Your task to perform on an android device: add a contact Image 0: 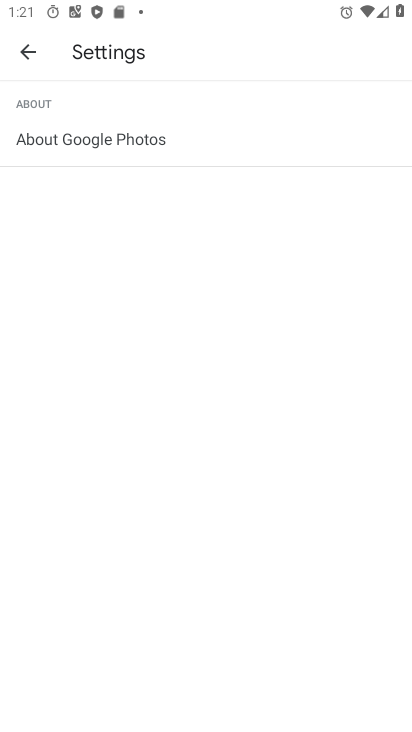
Step 0: press home button
Your task to perform on an android device: add a contact Image 1: 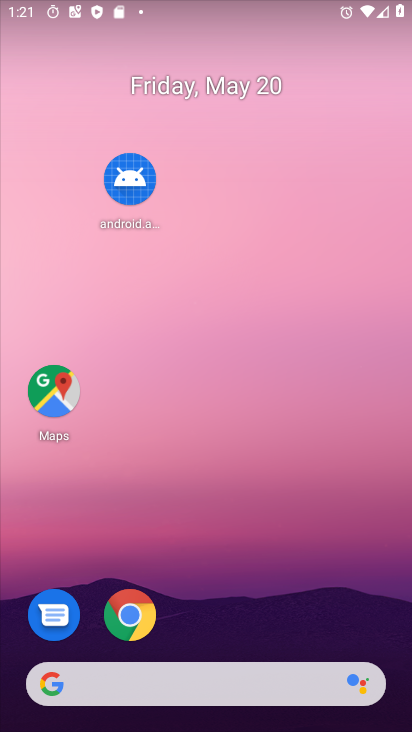
Step 1: drag from (245, 584) to (229, 159)
Your task to perform on an android device: add a contact Image 2: 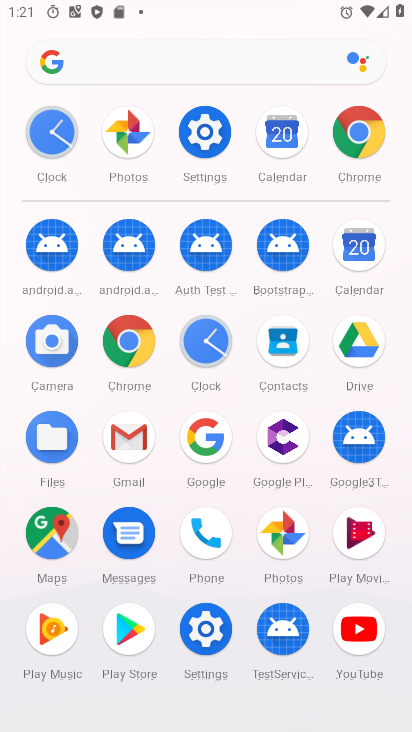
Step 2: click (293, 340)
Your task to perform on an android device: add a contact Image 3: 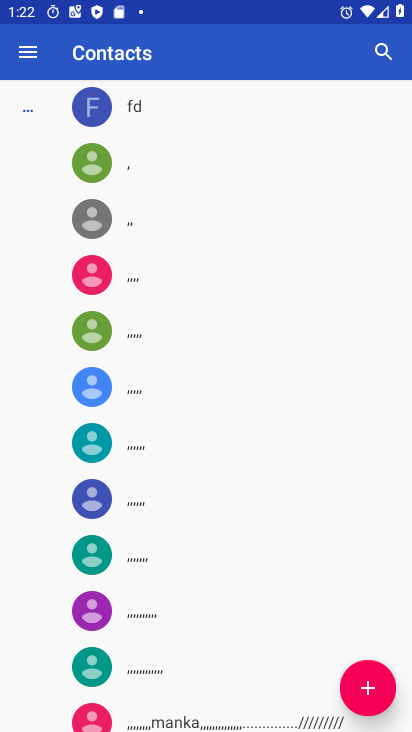
Step 3: click (368, 688)
Your task to perform on an android device: add a contact Image 4: 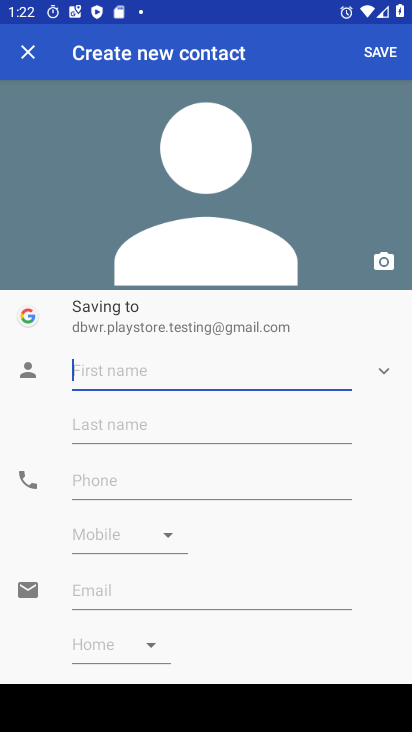
Step 4: type "zaz"
Your task to perform on an android device: add a contact Image 5: 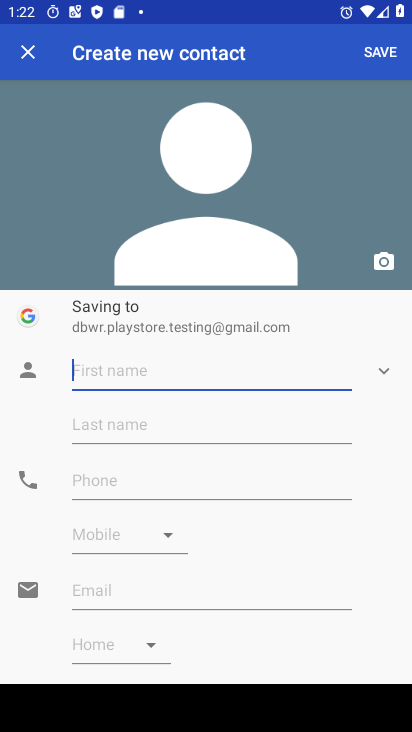
Step 5: click (166, 482)
Your task to perform on an android device: add a contact Image 6: 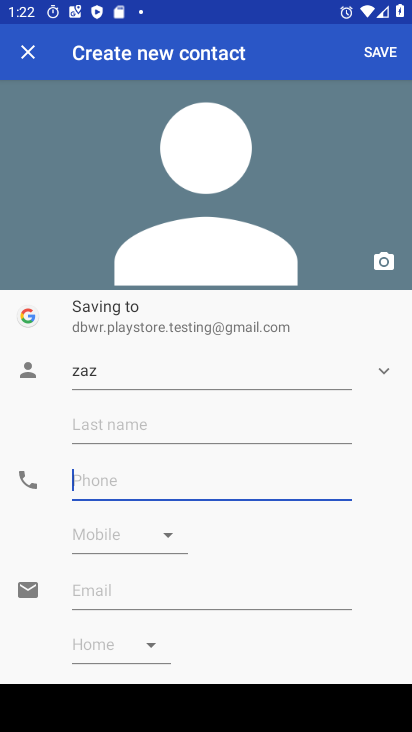
Step 6: type "3455433421"
Your task to perform on an android device: add a contact Image 7: 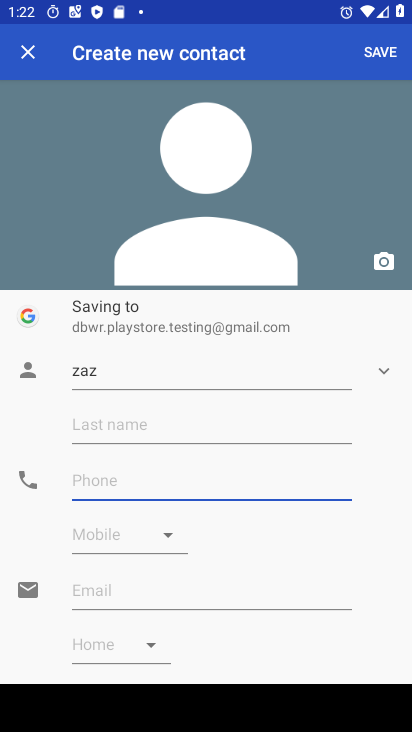
Step 7: click (381, 60)
Your task to perform on an android device: add a contact Image 8: 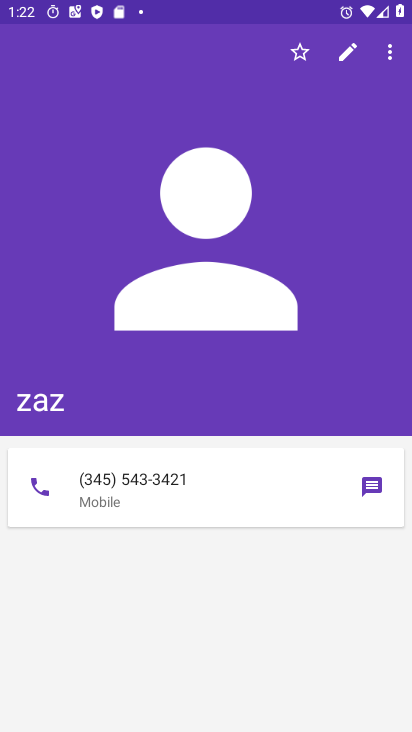
Step 8: task complete